Your task to perform on an android device: check google app version Image 0: 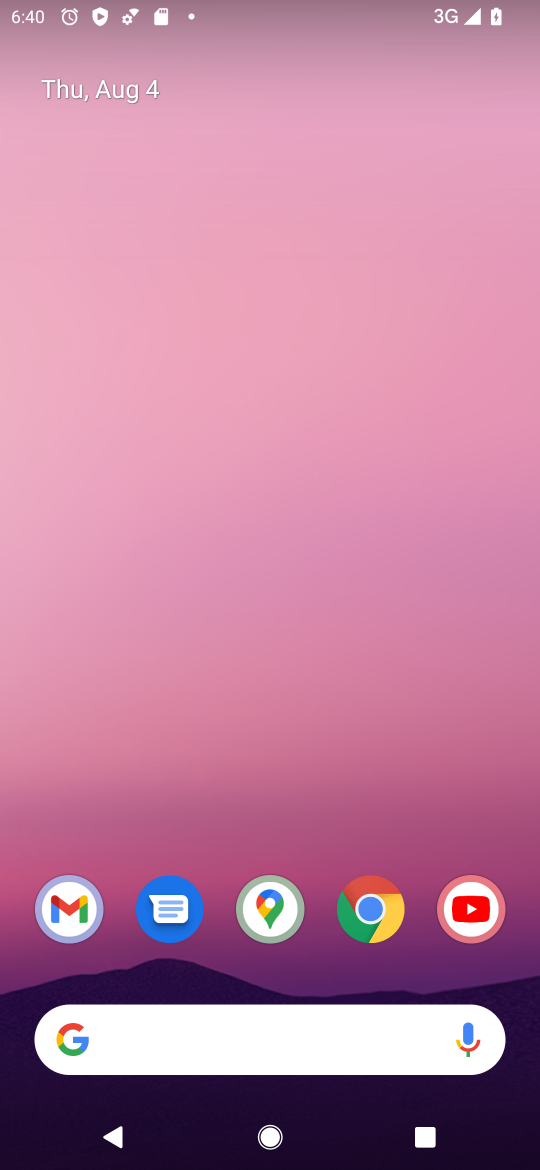
Step 0: drag from (226, 1022) to (241, 219)
Your task to perform on an android device: check google app version Image 1: 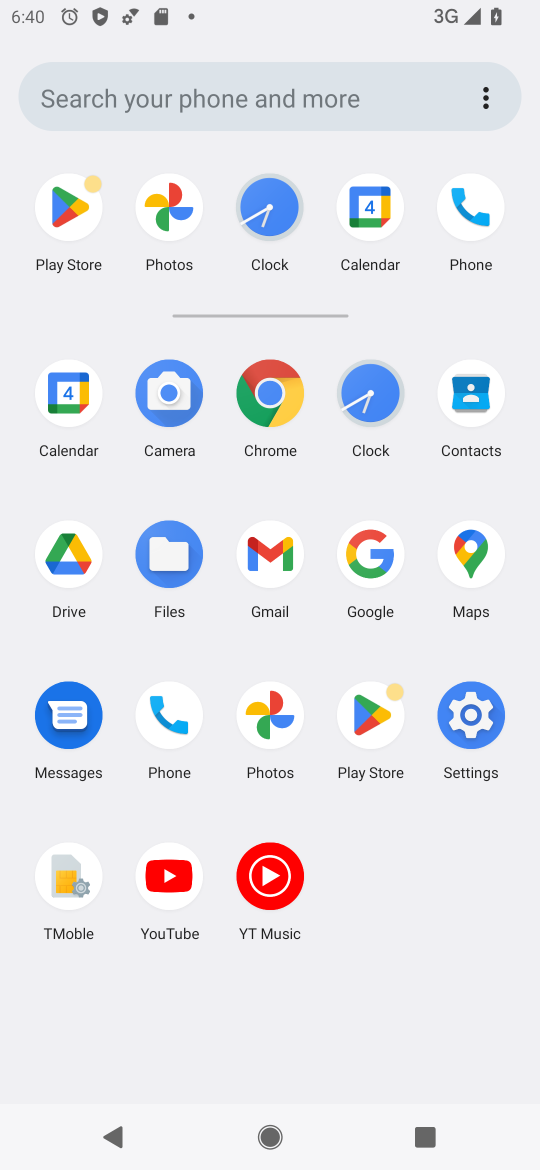
Step 1: click (471, 732)
Your task to perform on an android device: check google app version Image 2: 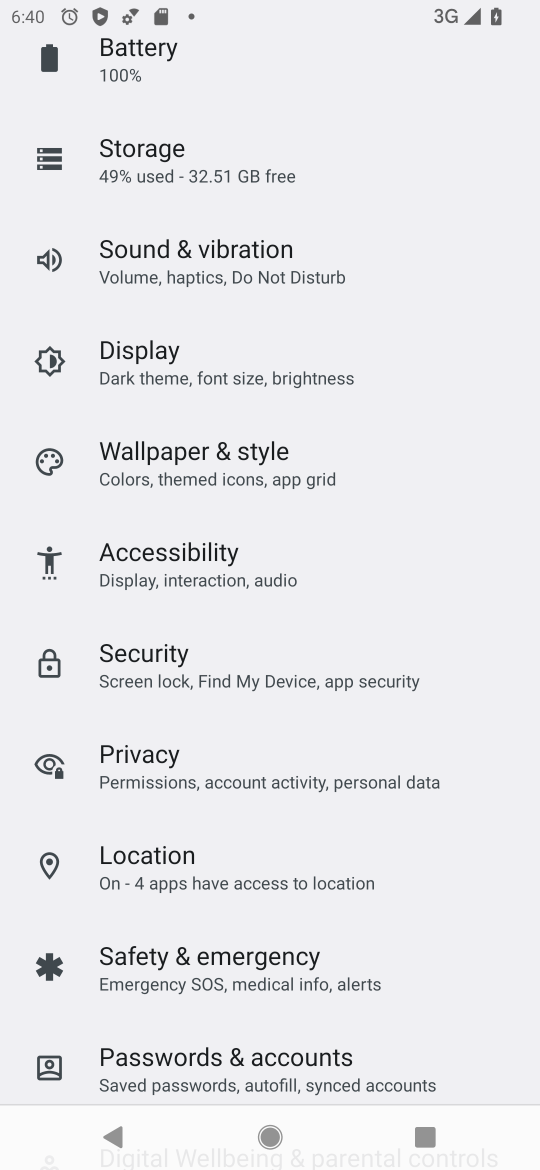
Step 2: drag from (262, 295) to (271, 855)
Your task to perform on an android device: check google app version Image 3: 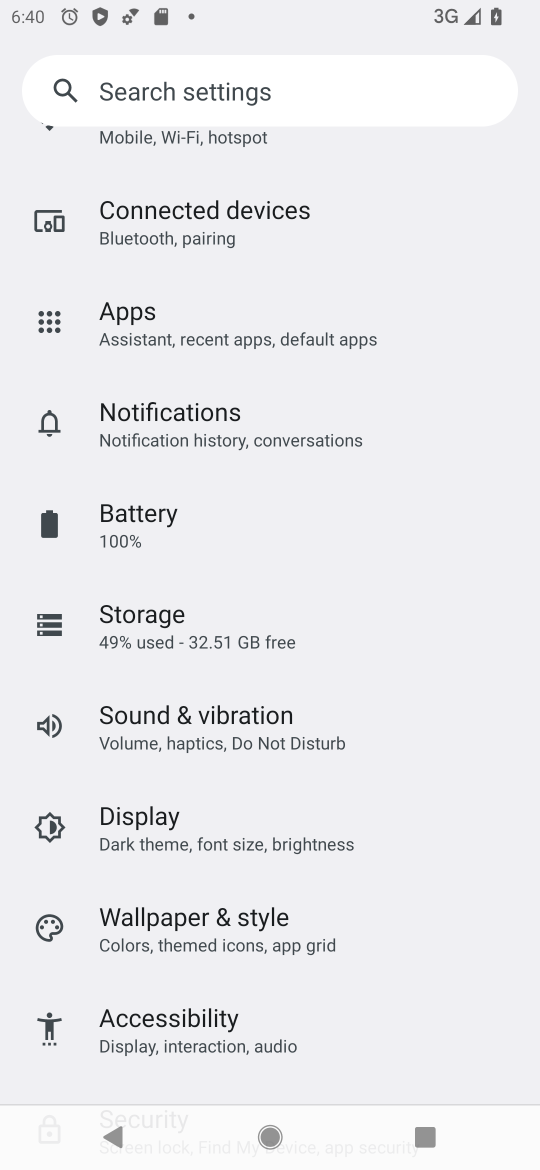
Step 3: drag from (276, 274) to (294, 771)
Your task to perform on an android device: check google app version Image 4: 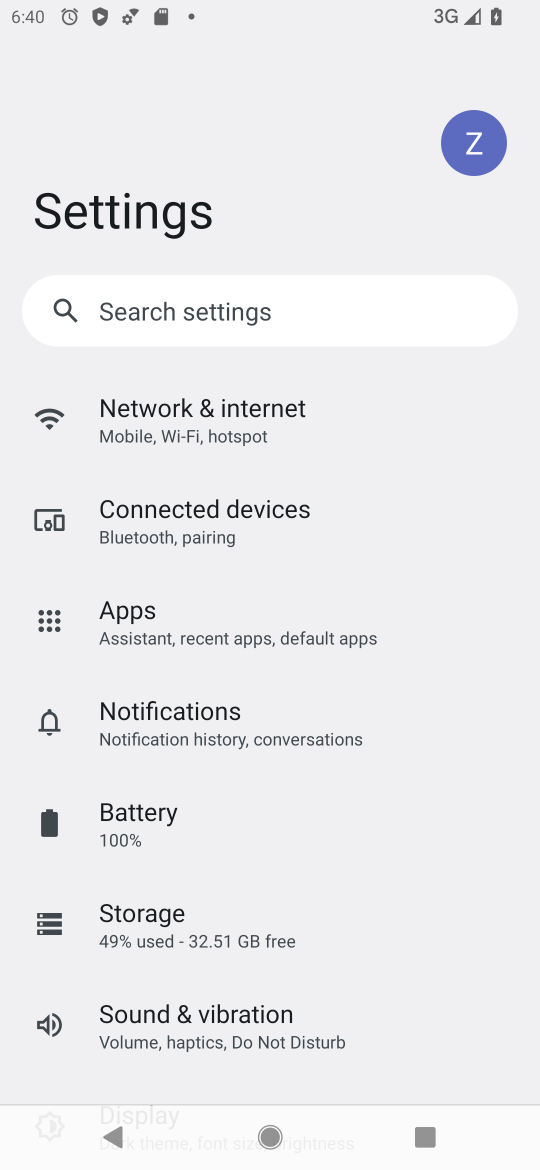
Step 4: drag from (363, 877) to (285, 291)
Your task to perform on an android device: check google app version Image 5: 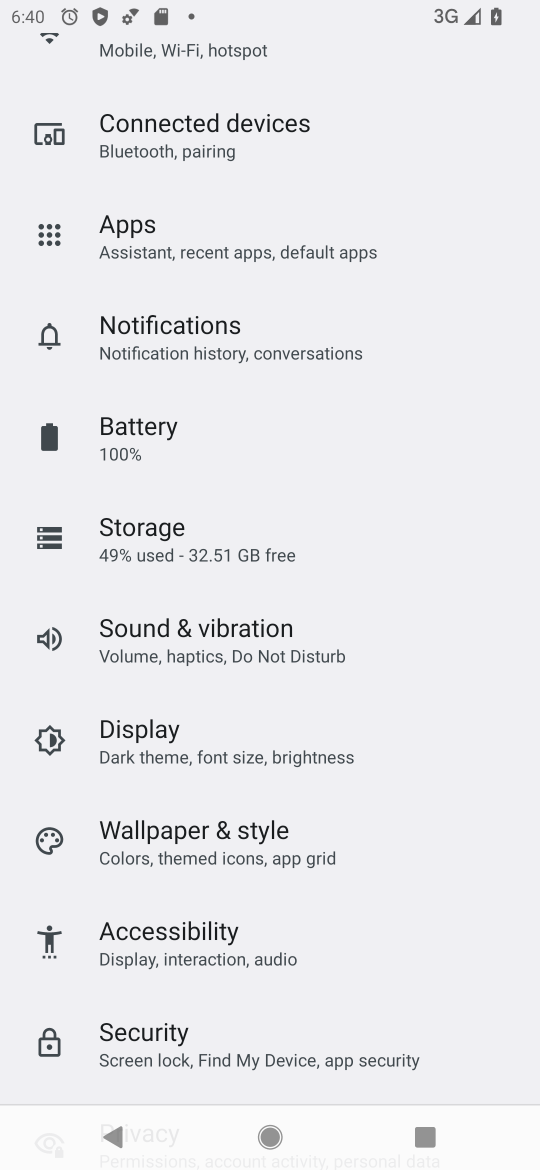
Step 5: drag from (193, 919) to (81, 260)
Your task to perform on an android device: check google app version Image 6: 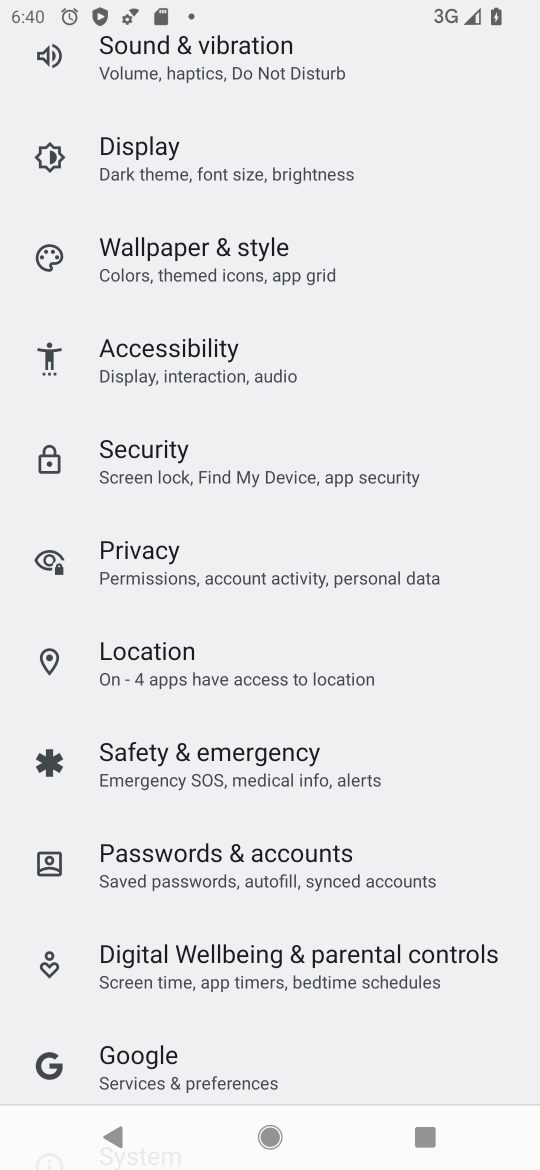
Step 6: drag from (300, 889) to (221, 190)
Your task to perform on an android device: check google app version Image 7: 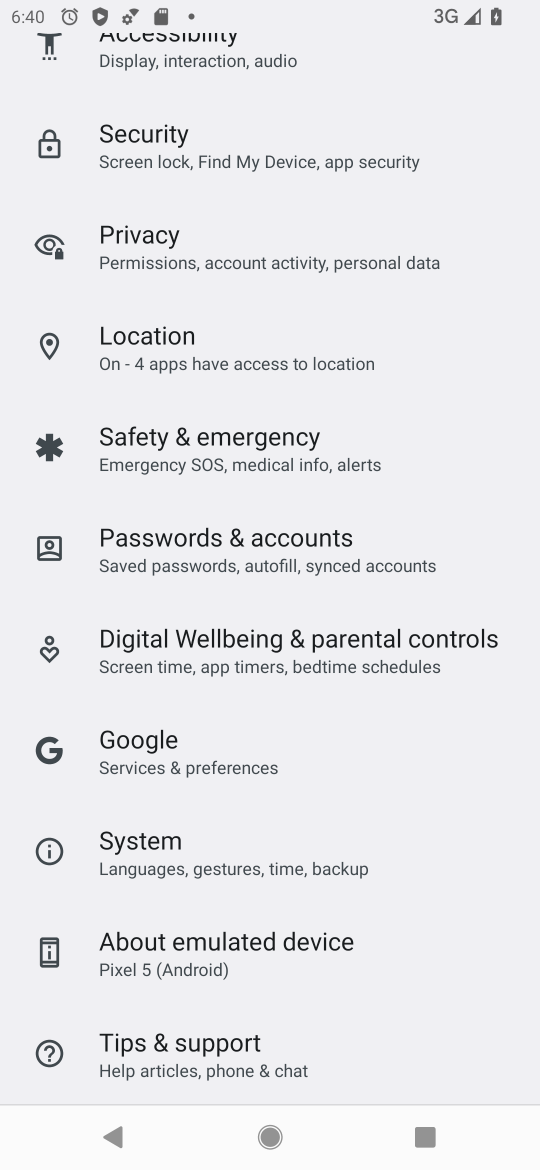
Step 7: drag from (166, 822) to (185, 287)
Your task to perform on an android device: check google app version Image 8: 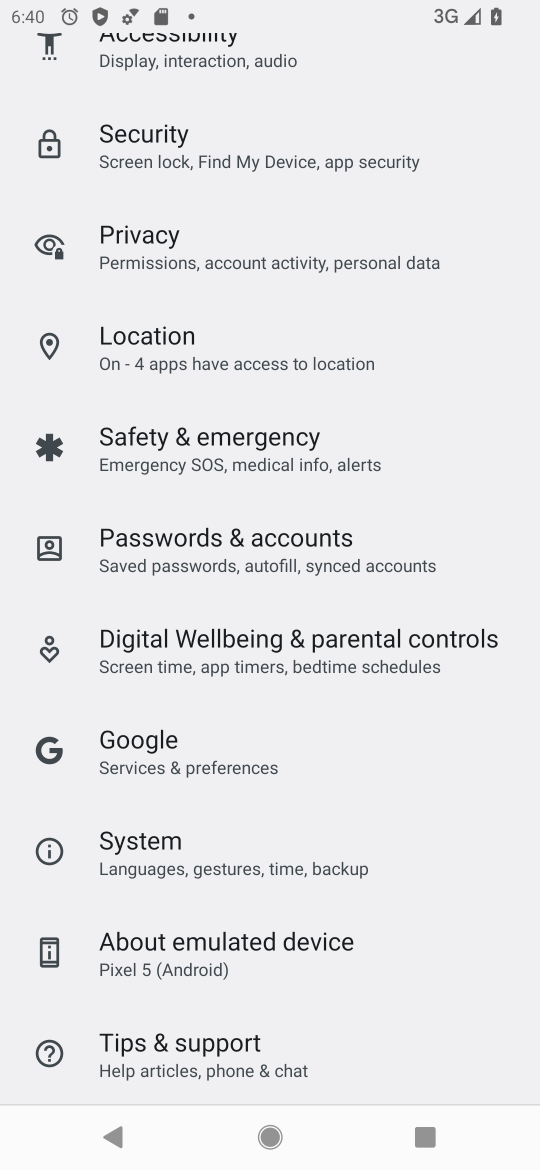
Step 8: drag from (245, 306) to (316, 1010)
Your task to perform on an android device: check google app version Image 9: 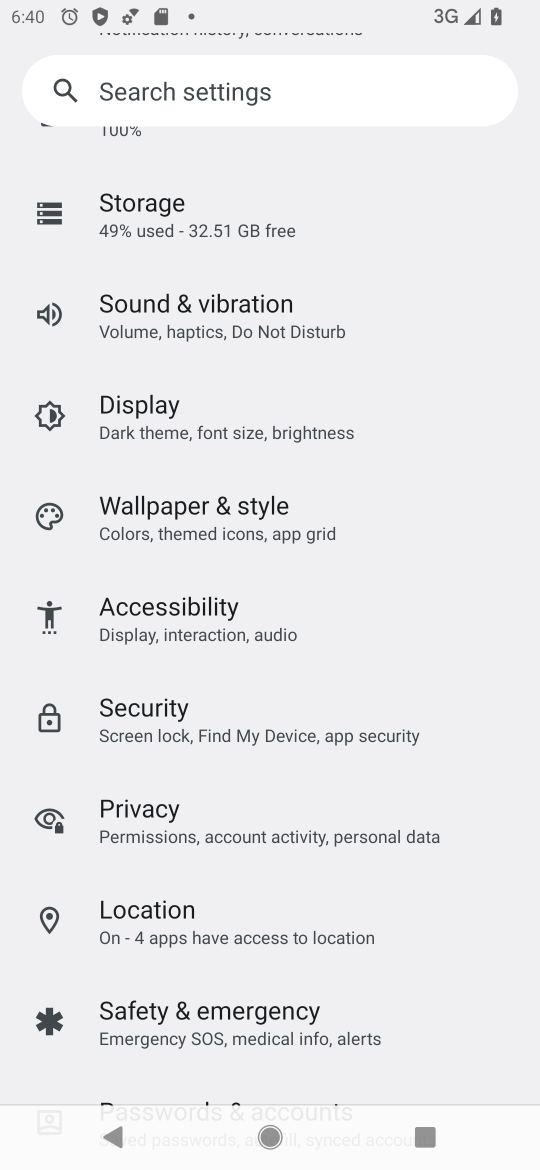
Step 9: drag from (290, 305) to (388, 889)
Your task to perform on an android device: check google app version Image 10: 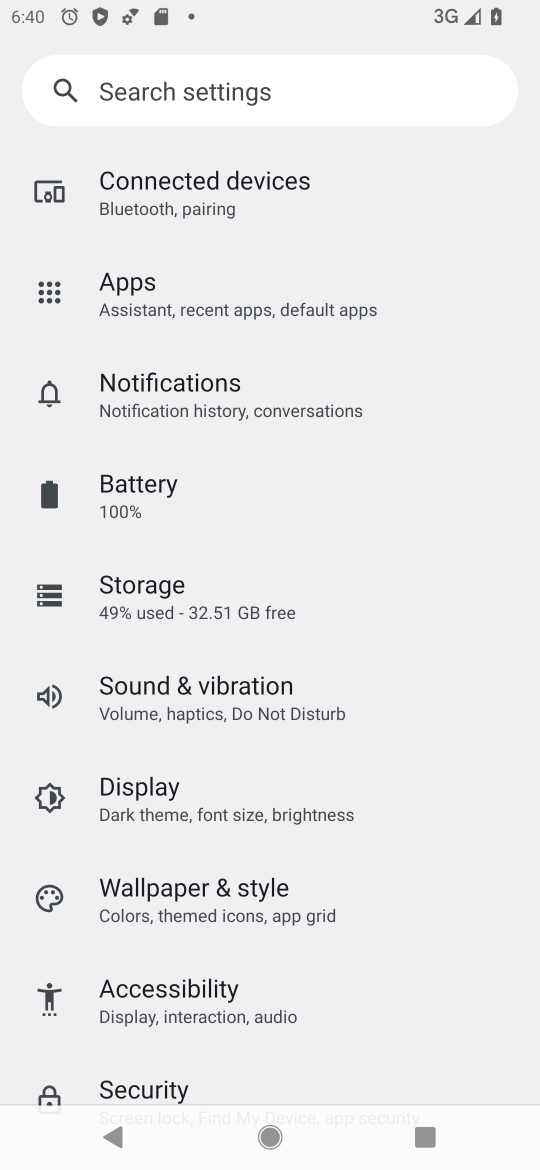
Step 10: drag from (301, 378) to (382, 976)
Your task to perform on an android device: check google app version Image 11: 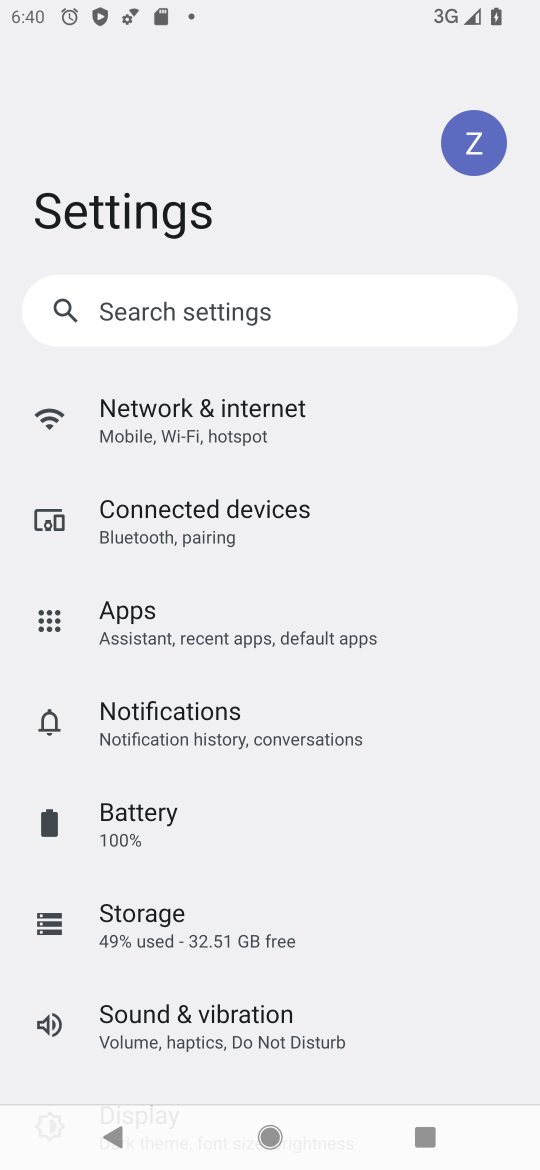
Step 11: drag from (292, 966) to (307, 336)
Your task to perform on an android device: check google app version Image 12: 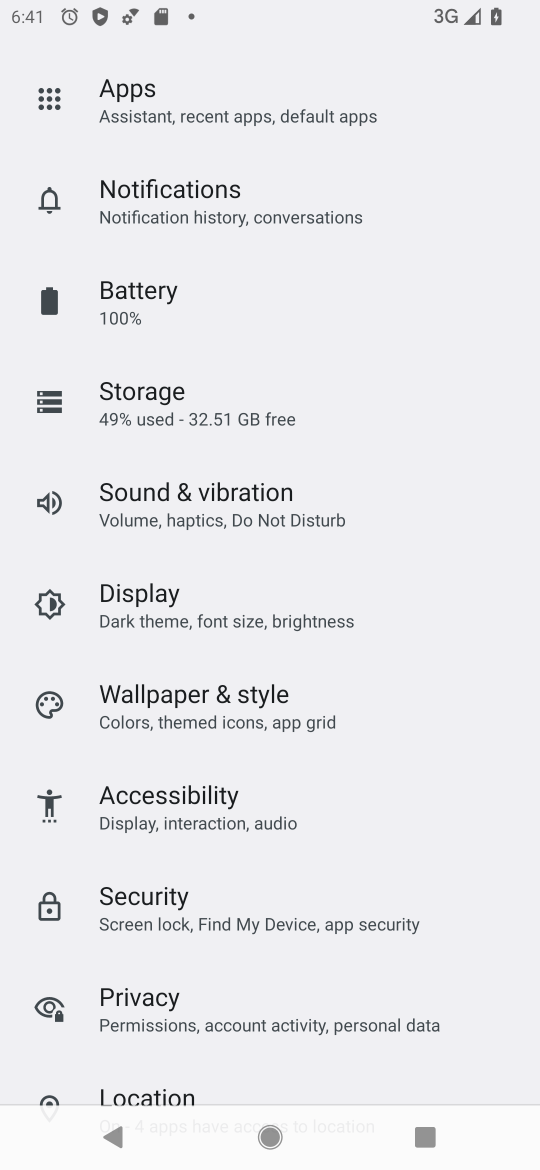
Step 12: drag from (296, 896) to (324, 271)
Your task to perform on an android device: check google app version Image 13: 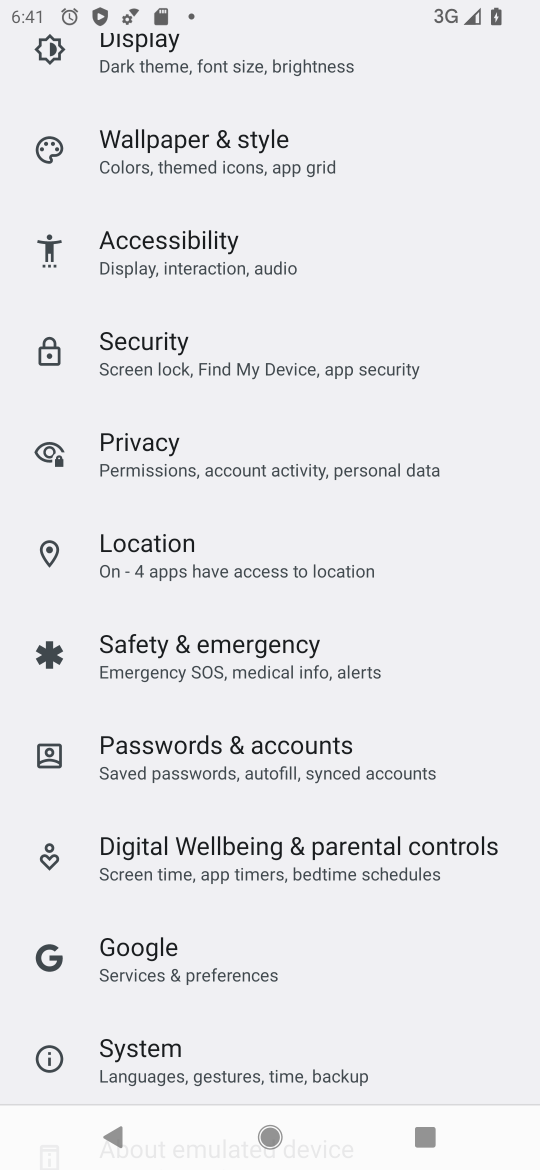
Step 13: drag from (215, 1054) to (178, 435)
Your task to perform on an android device: check google app version Image 14: 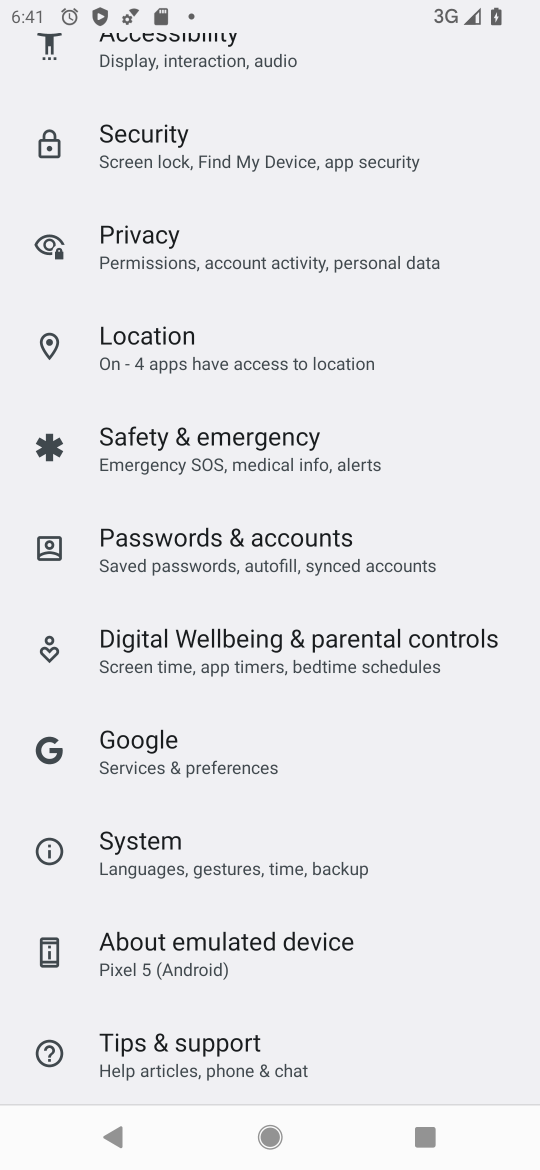
Step 14: click (162, 968)
Your task to perform on an android device: check google app version Image 15: 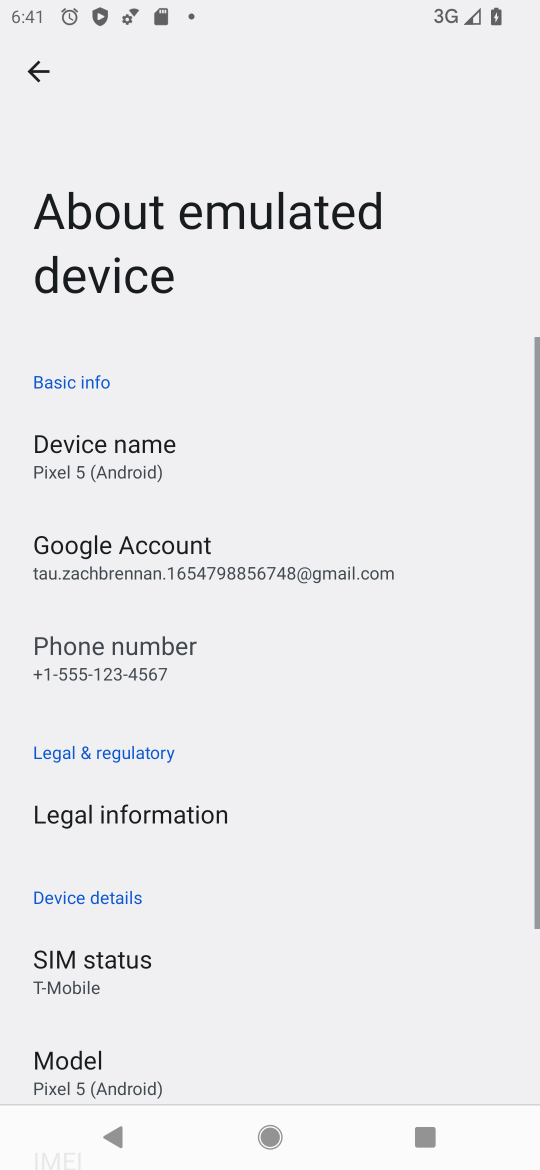
Step 15: drag from (128, 834) to (174, 349)
Your task to perform on an android device: check google app version Image 16: 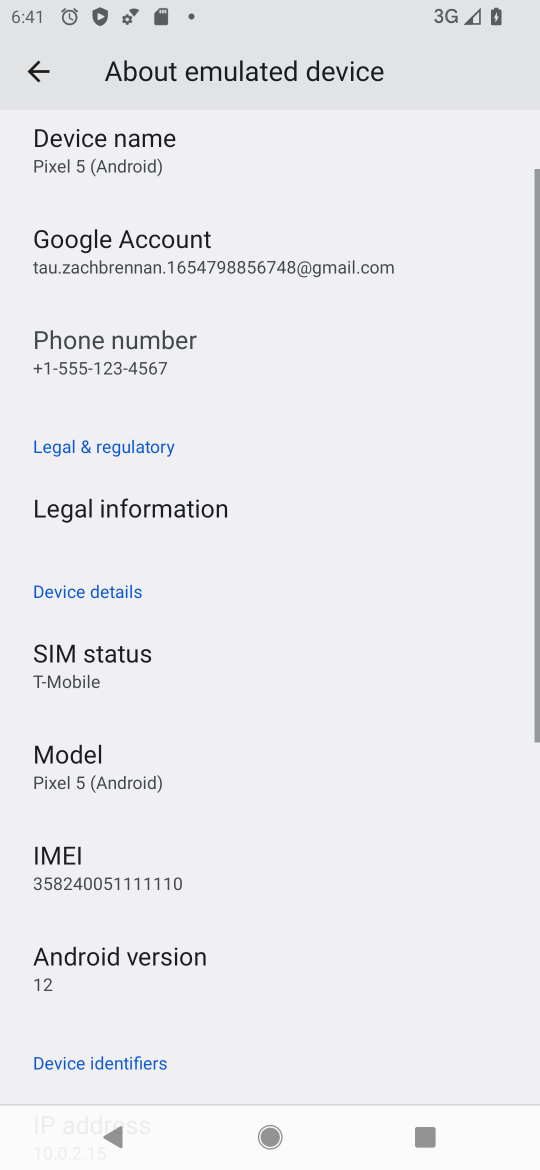
Step 16: click (108, 953)
Your task to perform on an android device: check google app version Image 17: 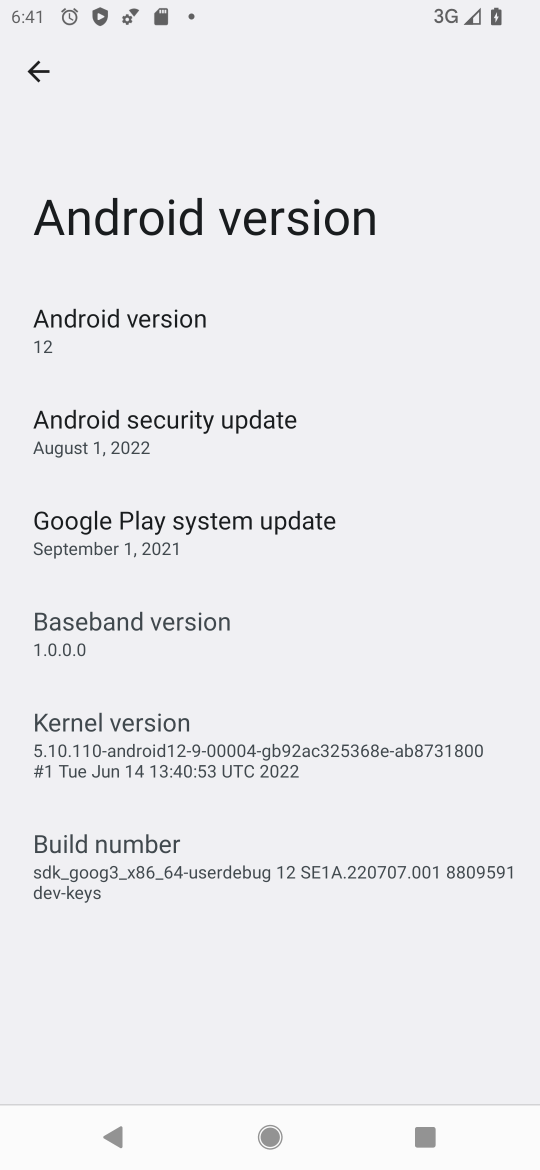
Step 17: task complete